Your task to perform on an android device: toggle notifications settings in the gmail app Image 0: 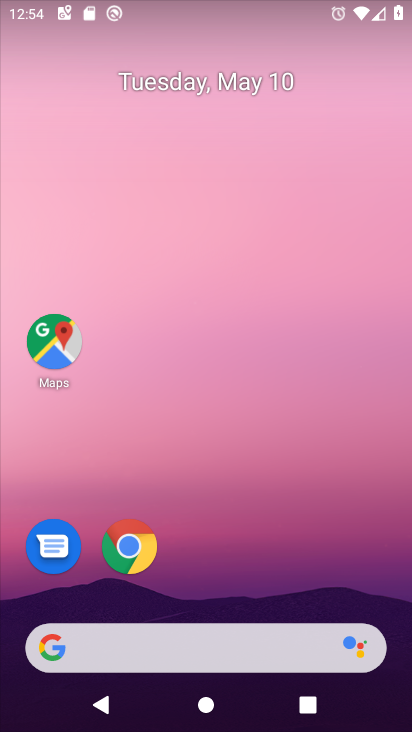
Step 0: drag from (254, 578) to (314, 150)
Your task to perform on an android device: toggle notifications settings in the gmail app Image 1: 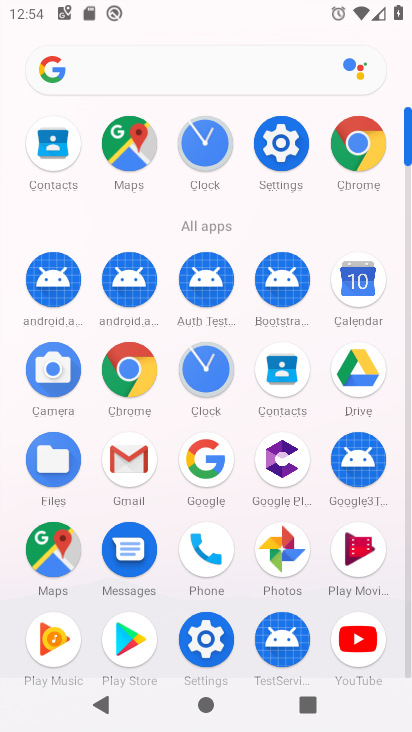
Step 1: click (144, 470)
Your task to perform on an android device: toggle notifications settings in the gmail app Image 2: 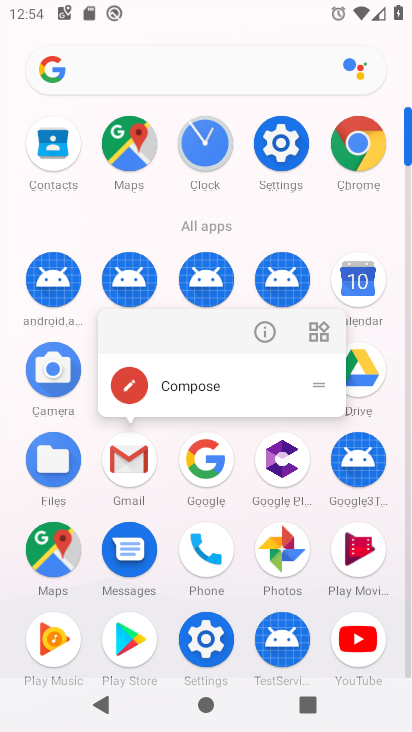
Step 2: click (252, 335)
Your task to perform on an android device: toggle notifications settings in the gmail app Image 3: 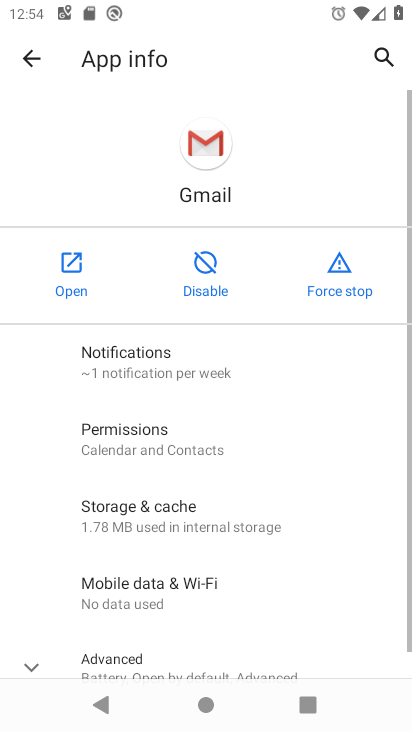
Step 3: click (247, 335)
Your task to perform on an android device: toggle notifications settings in the gmail app Image 4: 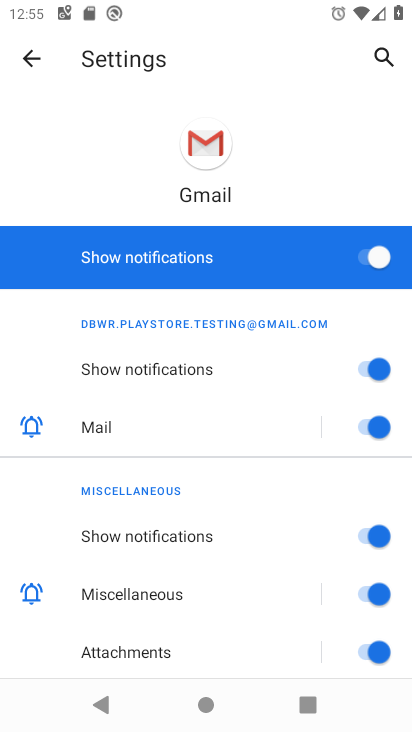
Step 4: click (363, 264)
Your task to perform on an android device: toggle notifications settings in the gmail app Image 5: 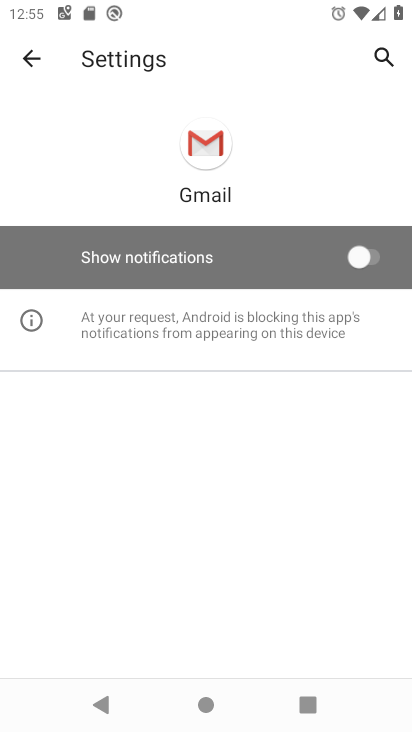
Step 5: task complete